Your task to perform on an android device: Go to network settings Image 0: 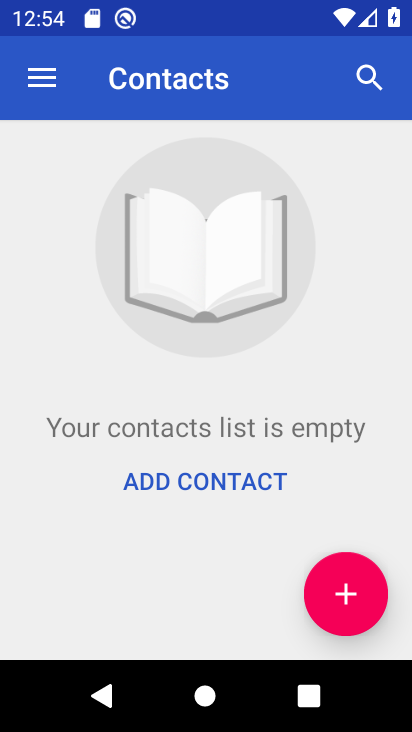
Step 0: press home button
Your task to perform on an android device: Go to network settings Image 1: 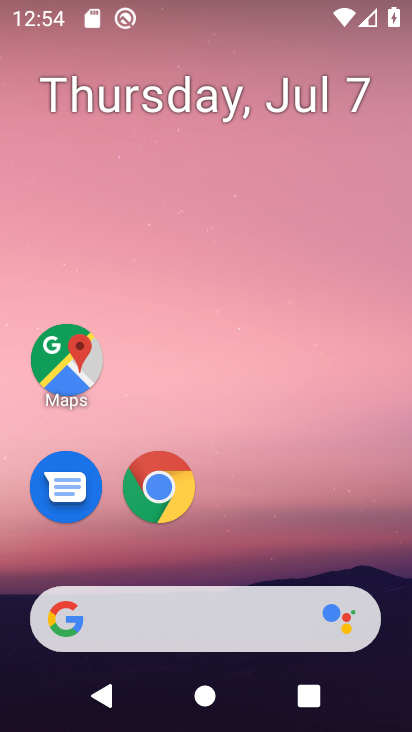
Step 1: drag from (331, 554) to (327, 79)
Your task to perform on an android device: Go to network settings Image 2: 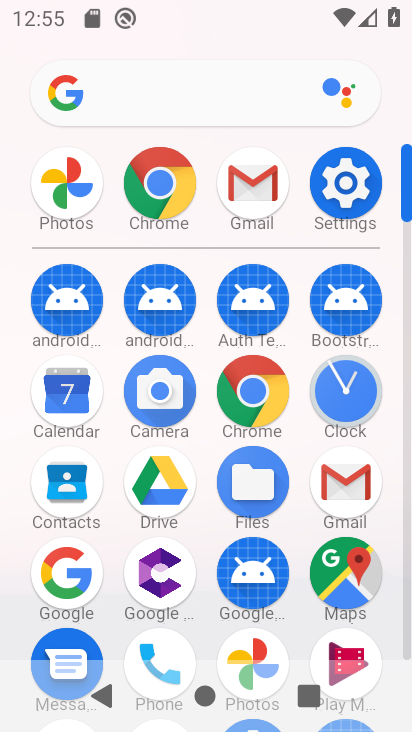
Step 2: click (357, 186)
Your task to perform on an android device: Go to network settings Image 3: 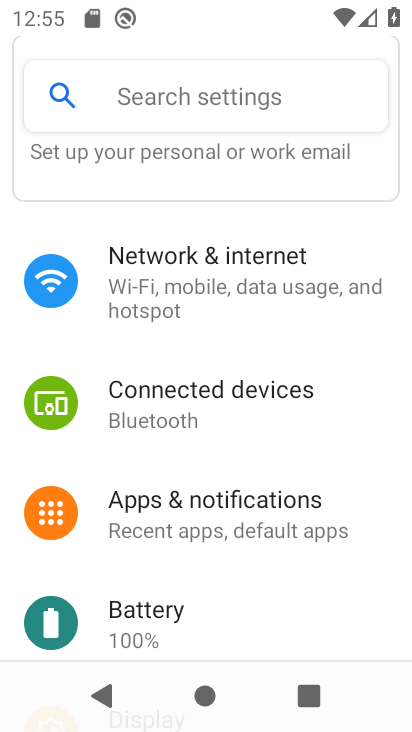
Step 3: drag from (363, 568) to (360, 361)
Your task to perform on an android device: Go to network settings Image 4: 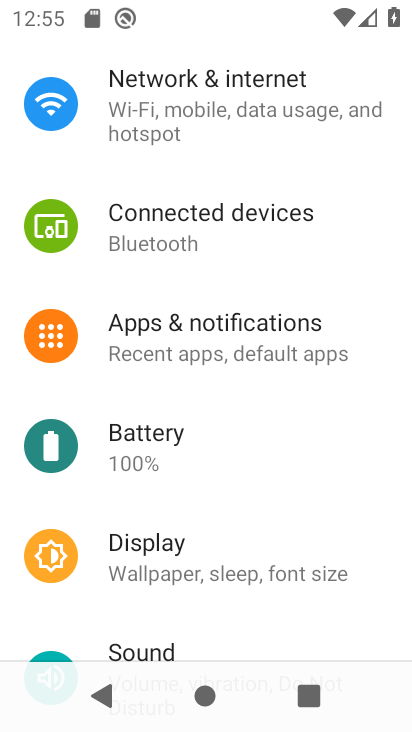
Step 4: drag from (360, 599) to (364, 366)
Your task to perform on an android device: Go to network settings Image 5: 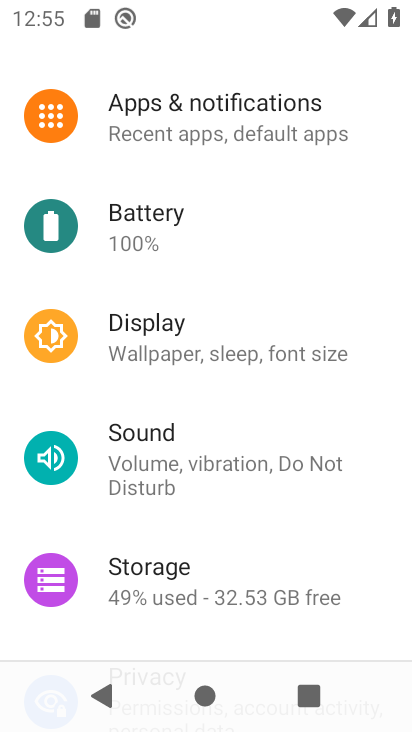
Step 5: drag from (361, 567) to (360, 325)
Your task to perform on an android device: Go to network settings Image 6: 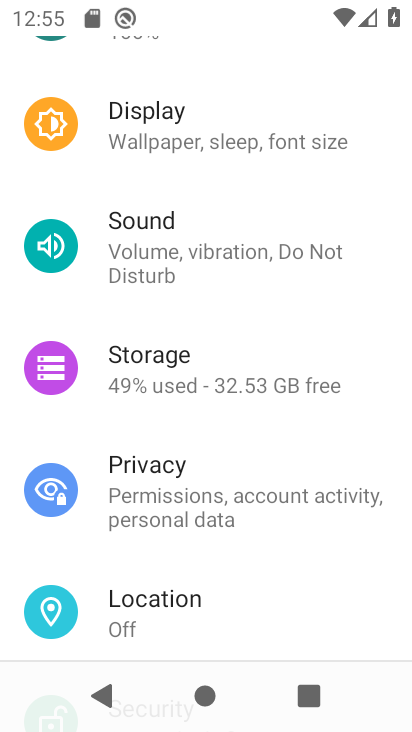
Step 6: drag from (348, 583) to (360, 392)
Your task to perform on an android device: Go to network settings Image 7: 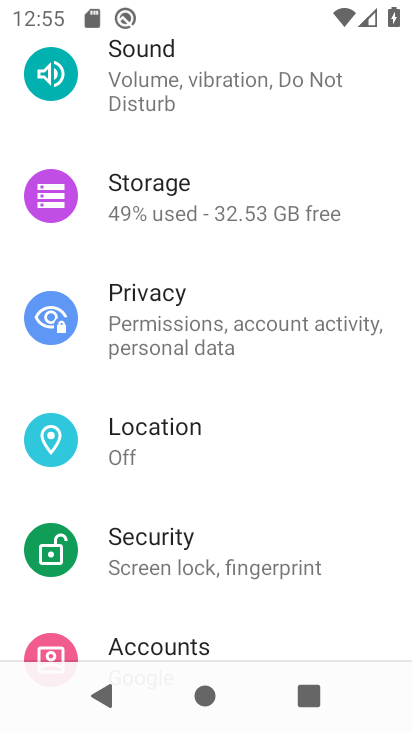
Step 7: drag from (359, 560) to (352, 343)
Your task to perform on an android device: Go to network settings Image 8: 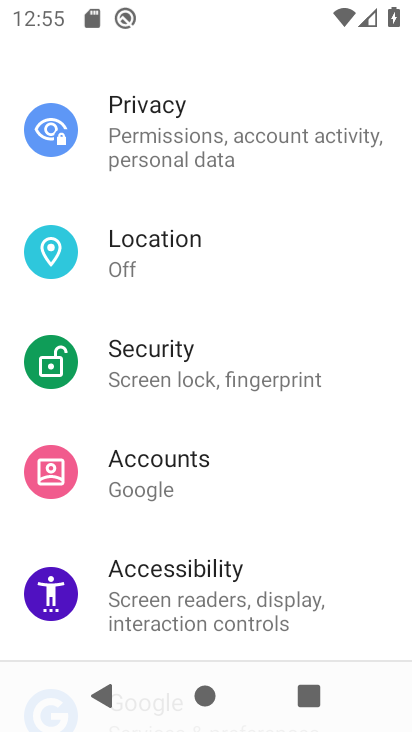
Step 8: drag from (346, 543) to (347, 260)
Your task to perform on an android device: Go to network settings Image 9: 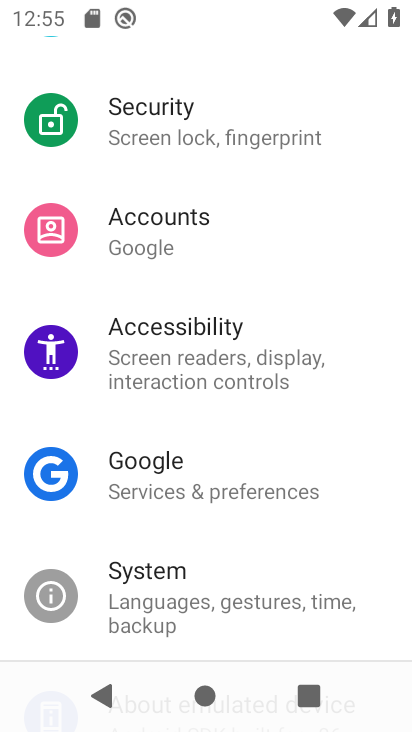
Step 9: drag from (358, 243) to (360, 413)
Your task to perform on an android device: Go to network settings Image 10: 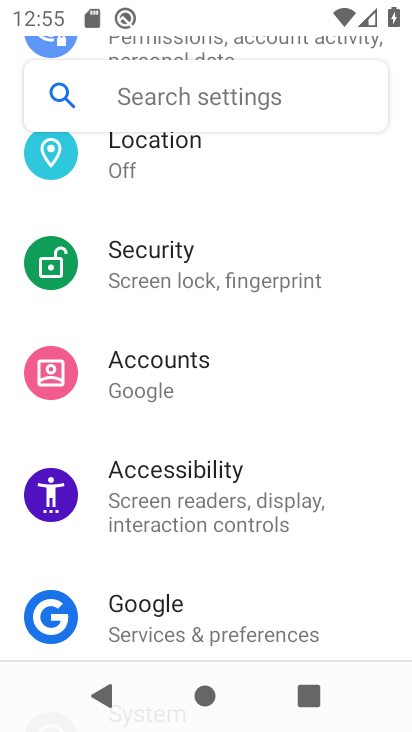
Step 10: drag from (349, 183) to (364, 354)
Your task to perform on an android device: Go to network settings Image 11: 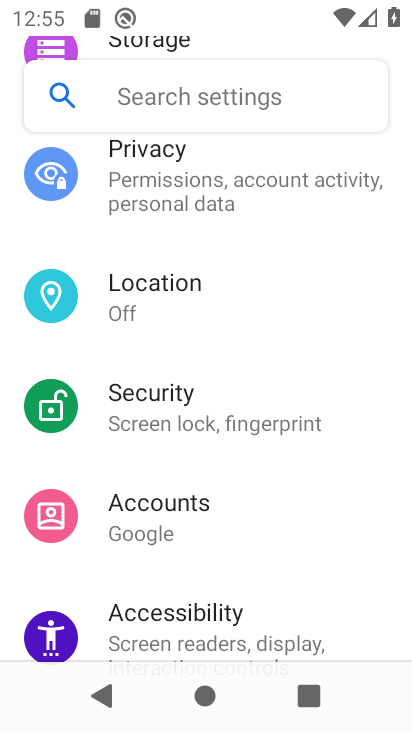
Step 11: drag from (342, 151) to (342, 344)
Your task to perform on an android device: Go to network settings Image 12: 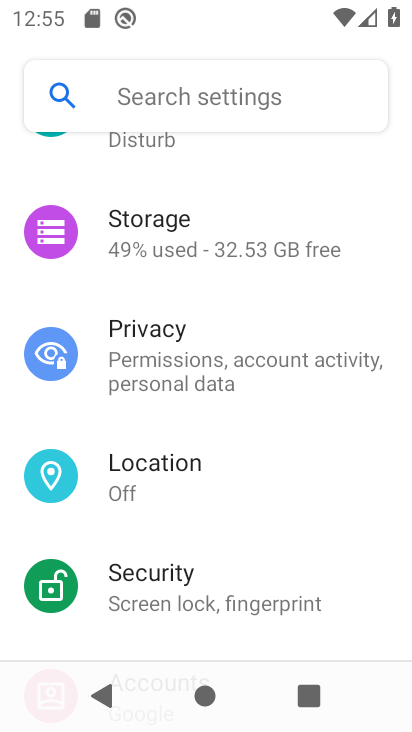
Step 12: drag from (320, 172) to (339, 409)
Your task to perform on an android device: Go to network settings Image 13: 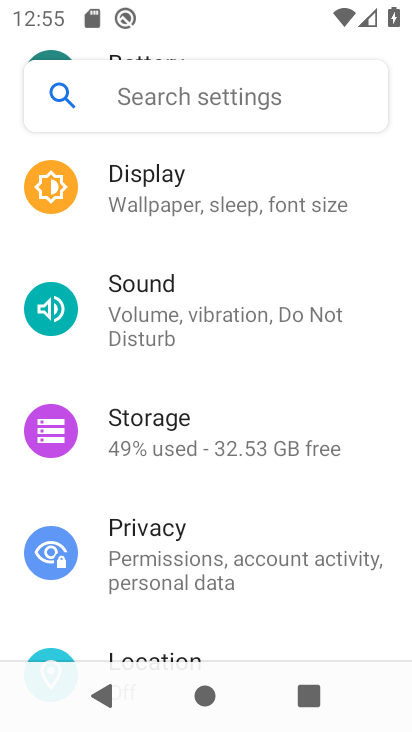
Step 13: drag from (317, 169) to (316, 388)
Your task to perform on an android device: Go to network settings Image 14: 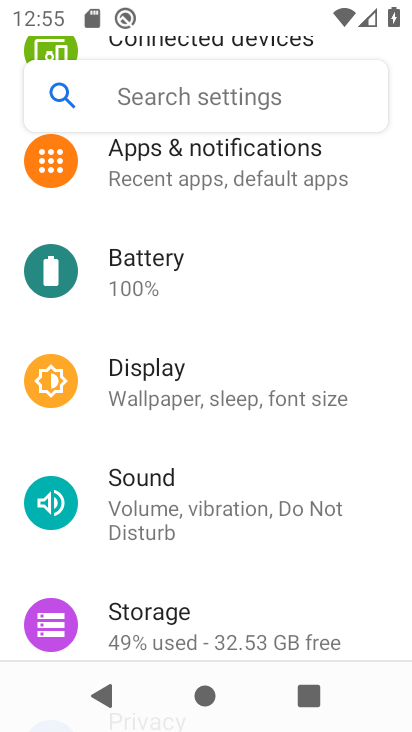
Step 14: drag from (368, 164) to (362, 426)
Your task to perform on an android device: Go to network settings Image 15: 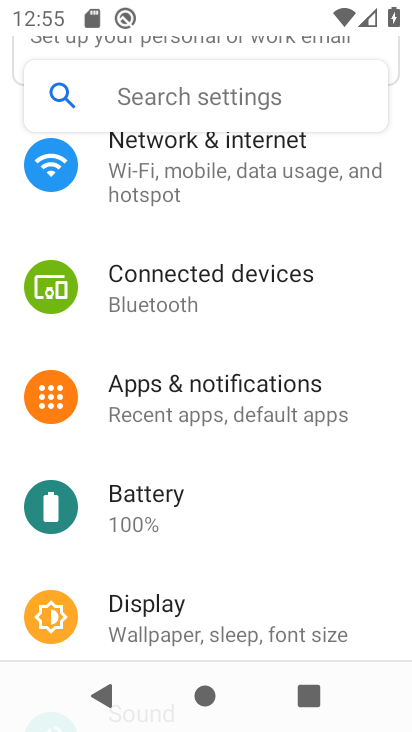
Step 15: drag from (334, 247) to (349, 379)
Your task to perform on an android device: Go to network settings Image 16: 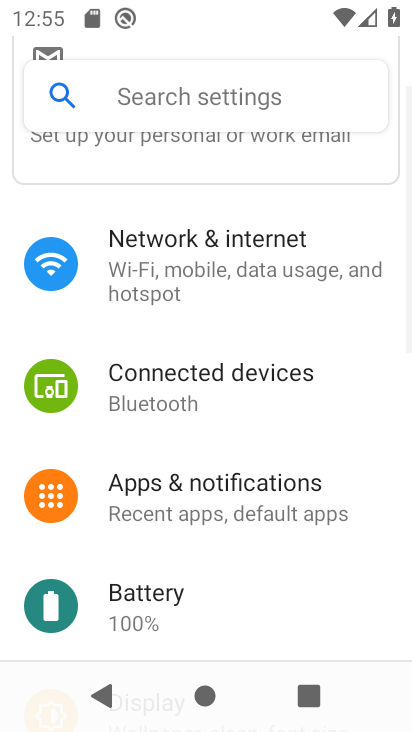
Step 16: click (237, 269)
Your task to perform on an android device: Go to network settings Image 17: 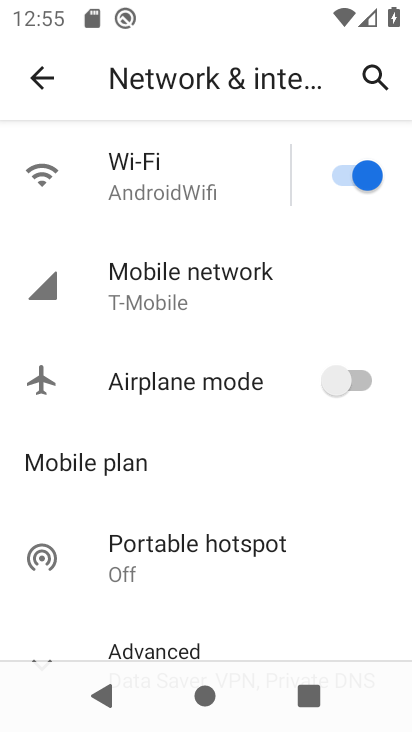
Step 17: task complete